Your task to perform on an android device: Open Amazon Image 0: 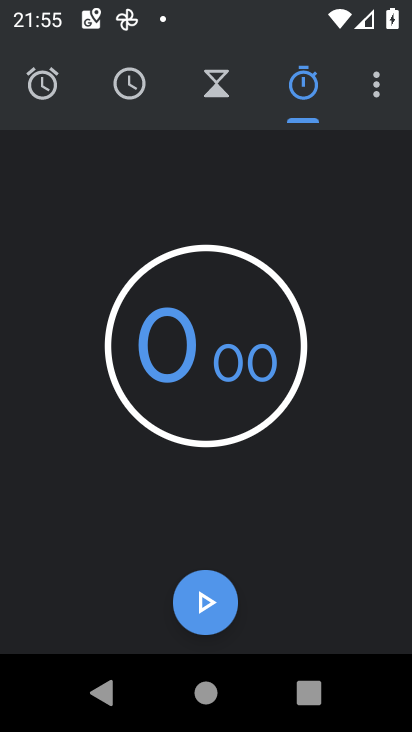
Step 0: press home button
Your task to perform on an android device: Open Amazon Image 1: 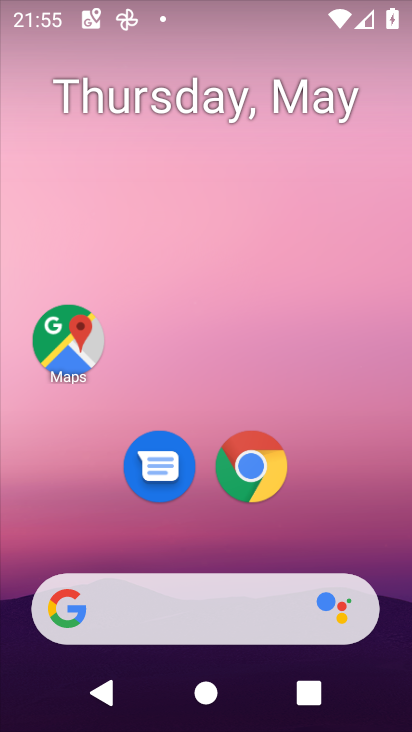
Step 1: click (257, 467)
Your task to perform on an android device: Open Amazon Image 2: 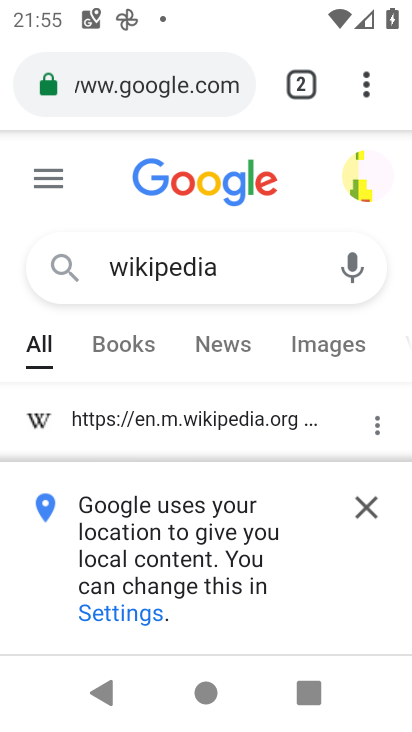
Step 2: click (156, 109)
Your task to perform on an android device: Open Amazon Image 3: 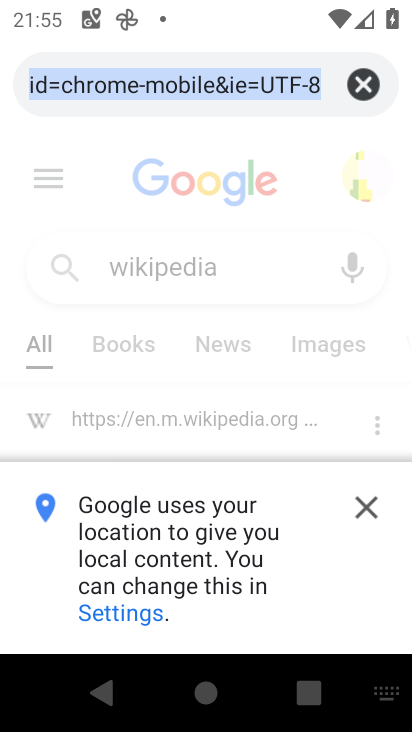
Step 3: type "amazon"
Your task to perform on an android device: Open Amazon Image 4: 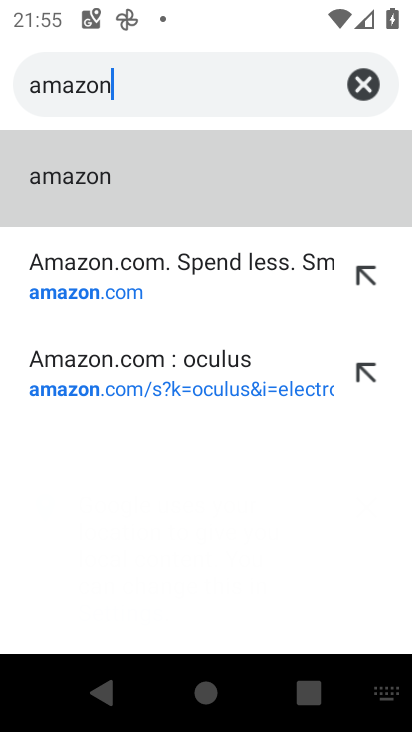
Step 4: click (198, 276)
Your task to perform on an android device: Open Amazon Image 5: 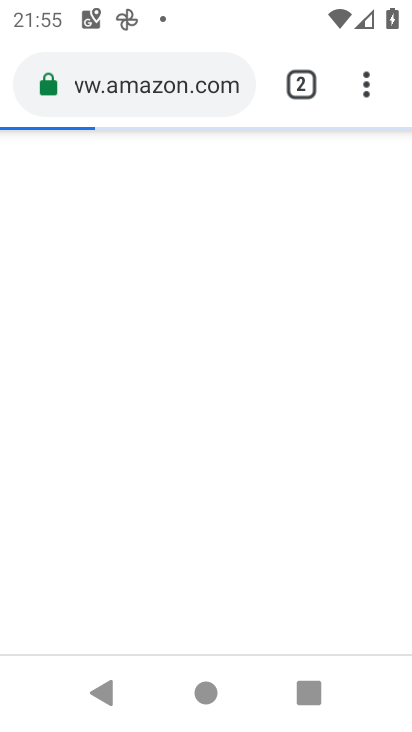
Step 5: task complete